Your task to perform on an android device: Turn on the flashlight Image 0: 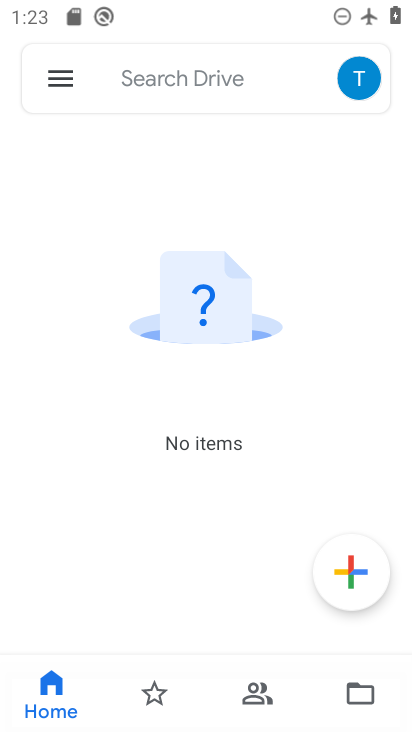
Step 0: press home button
Your task to perform on an android device: Turn on the flashlight Image 1: 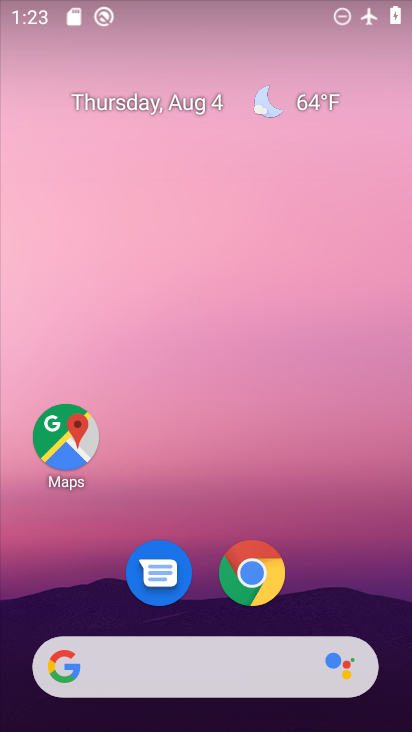
Step 1: drag from (344, 407) to (355, 105)
Your task to perform on an android device: Turn on the flashlight Image 2: 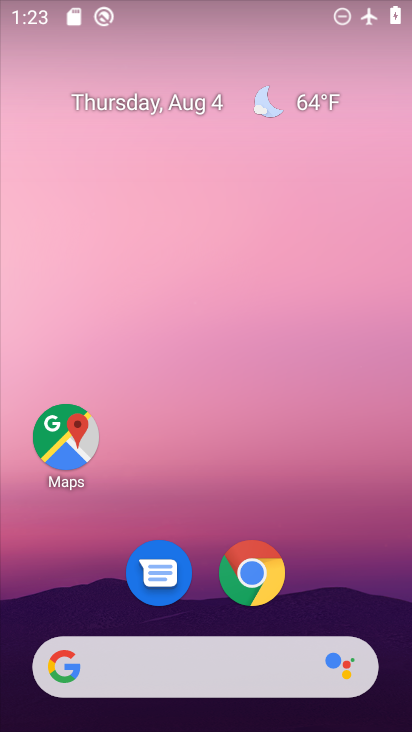
Step 2: drag from (348, 506) to (333, 43)
Your task to perform on an android device: Turn on the flashlight Image 3: 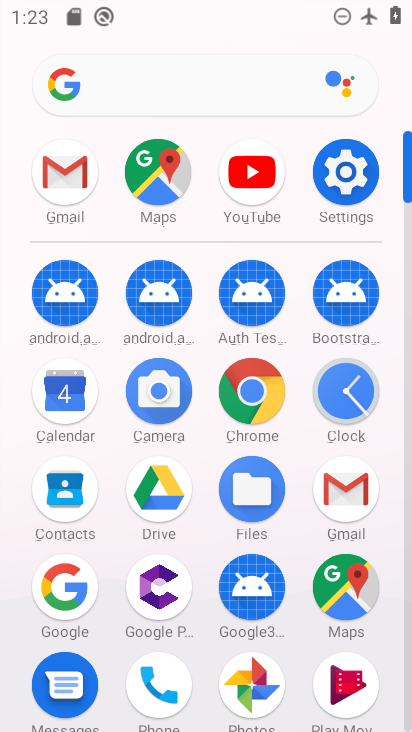
Step 3: click (344, 173)
Your task to perform on an android device: Turn on the flashlight Image 4: 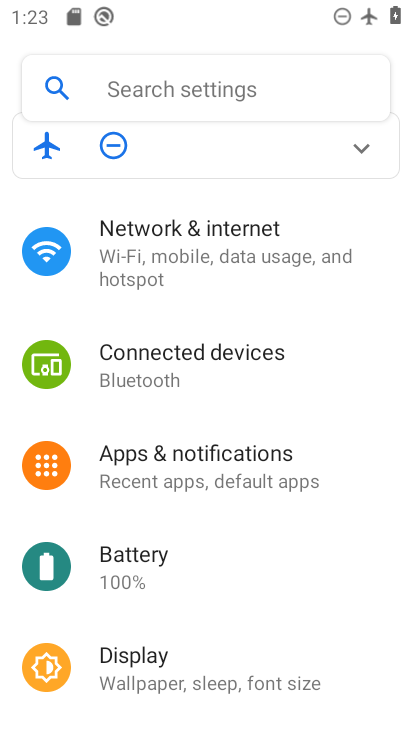
Step 4: click (201, 254)
Your task to perform on an android device: Turn on the flashlight Image 5: 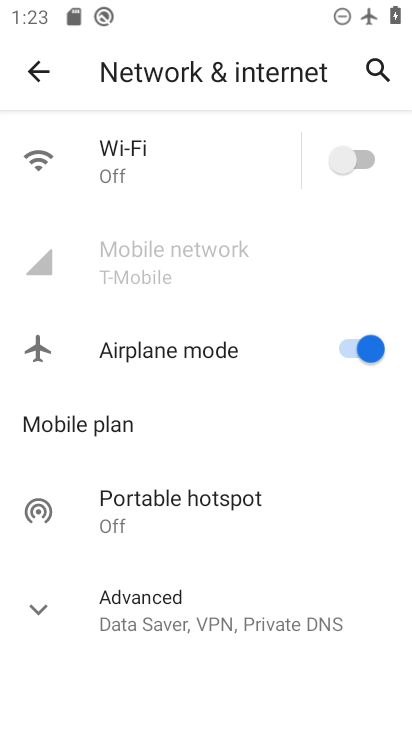
Step 5: click (32, 77)
Your task to perform on an android device: Turn on the flashlight Image 6: 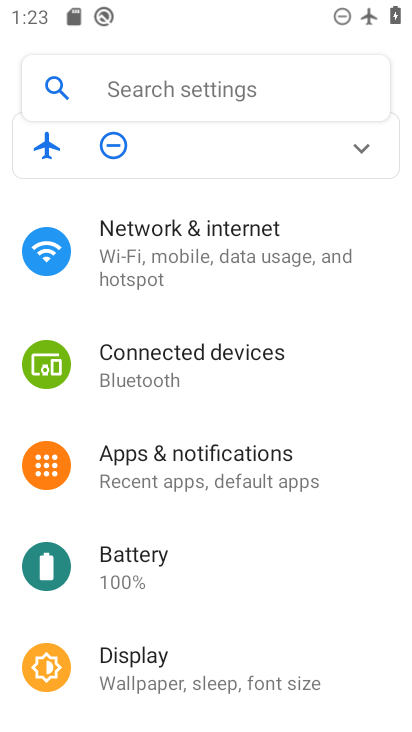
Step 6: click (159, 649)
Your task to perform on an android device: Turn on the flashlight Image 7: 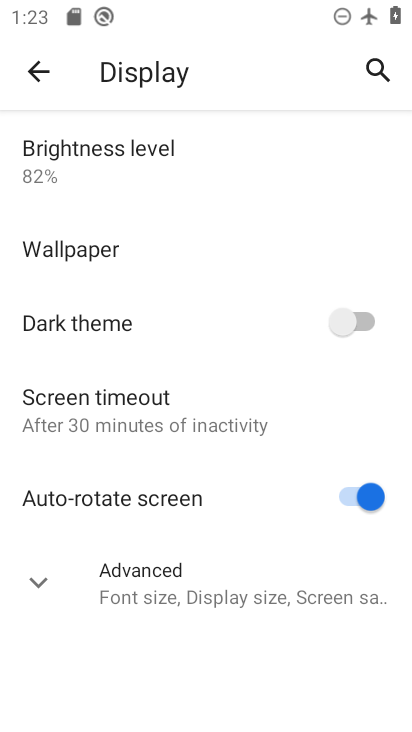
Step 7: task complete